Your task to perform on an android device: Go to Google maps Image 0: 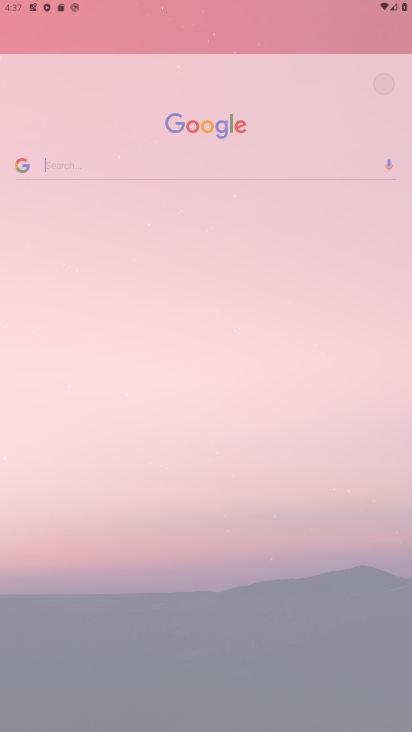
Step 0: press home button
Your task to perform on an android device: Go to Google maps Image 1: 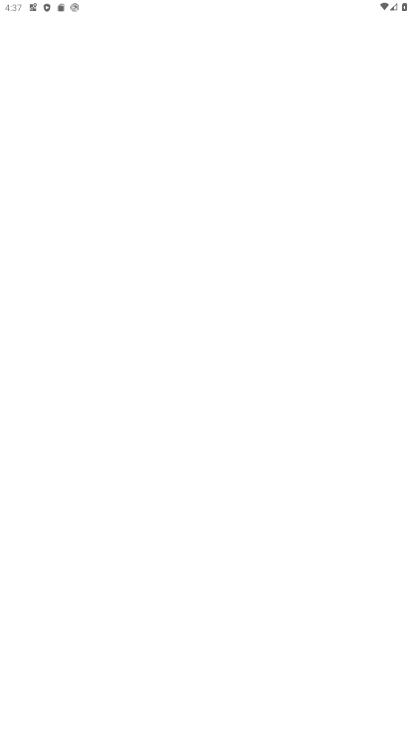
Step 1: click (224, 67)
Your task to perform on an android device: Go to Google maps Image 2: 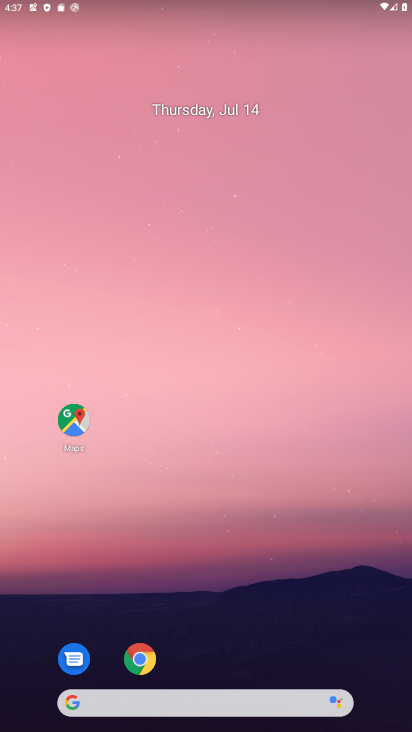
Step 2: click (71, 425)
Your task to perform on an android device: Go to Google maps Image 3: 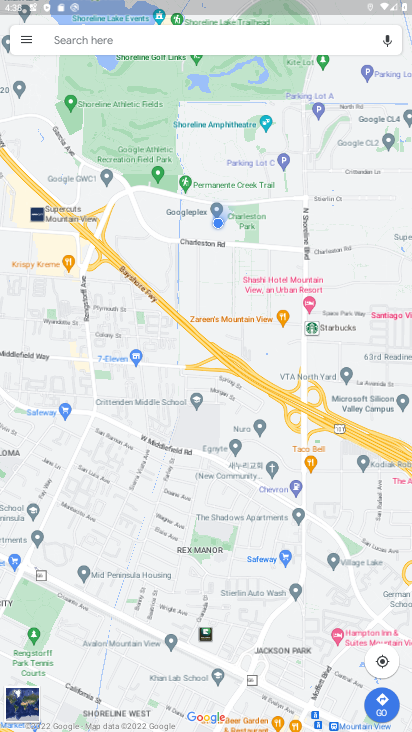
Step 3: task complete